Your task to perform on an android device: toggle pop-ups in chrome Image 0: 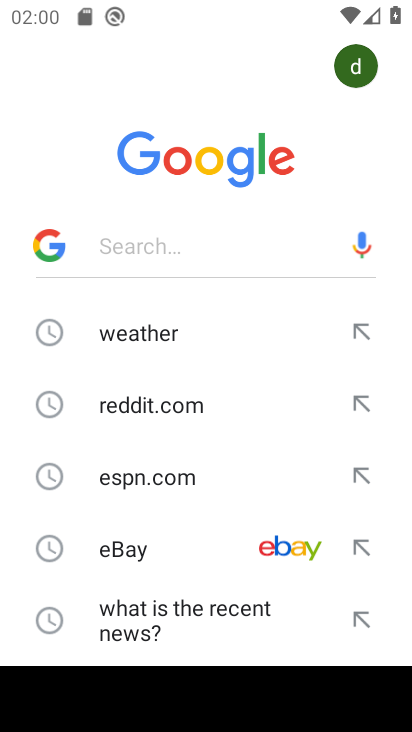
Step 0: press home button
Your task to perform on an android device: toggle pop-ups in chrome Image 1: 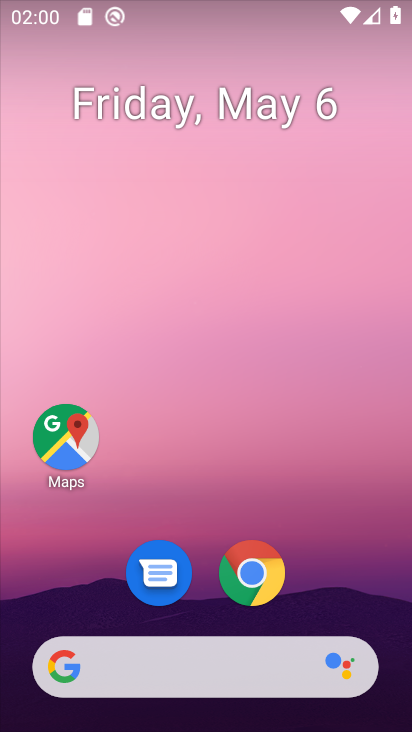
Step 1: drag from (305, 534) to (304, 239)
Your task to perform on an android device: toggle pop-ups in chrome Image 2: 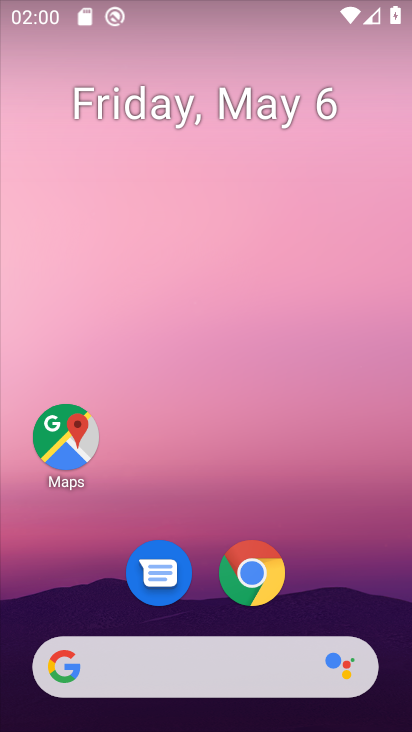
Step 2: drag from (322, 514) to (322, 272)
Your task to perform on an android device: toggle pop-ups in chrome Image 3: 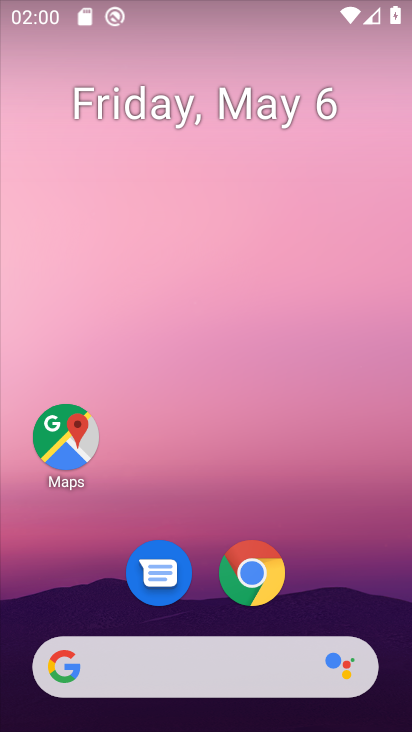
Step 3: drag from (290, 629) to (307, 248)
Your task to perform on an android device: toggle pop-ups in chrome Image 4: 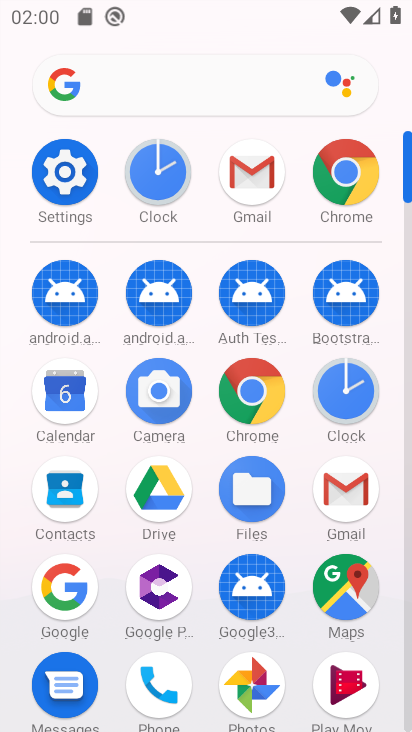
Step 4: click (255, 381)
Your task to perform on an android device: toggle pop-ups in chrome Image 5: 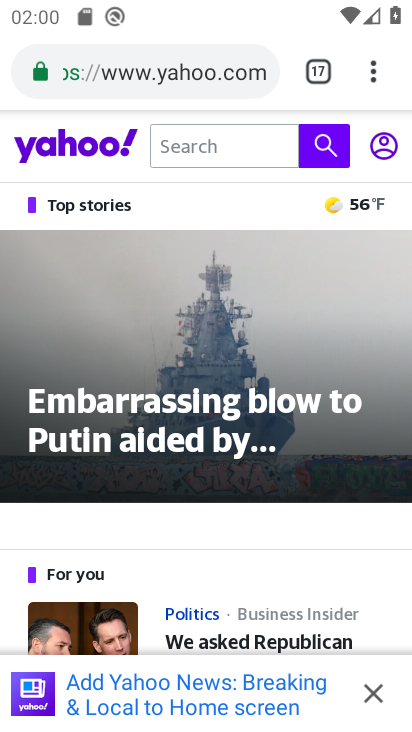
Step 5: click (356, 70)
Your task to perform on an android device: toggle pop-ups in chrome Image 6: 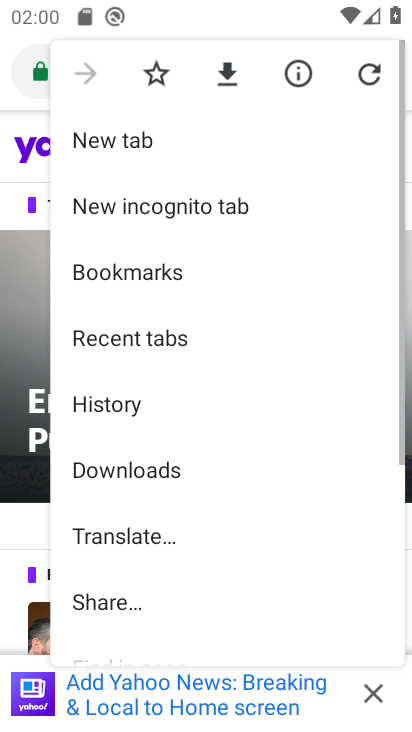
Step 6: drag from (141, 594) to (234, 180)
Your task to perform on an android device: toggle pop-ups in chrome Image 7: 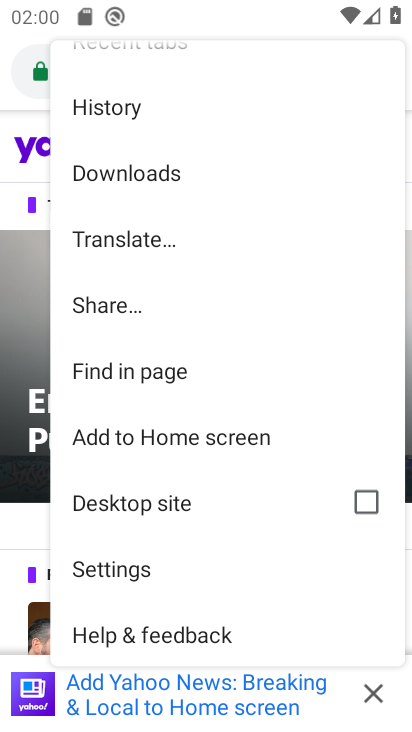
Step 7: click (151, 568)
Your task to perform on an android device: toggle pop-ups in chrome Image 8: 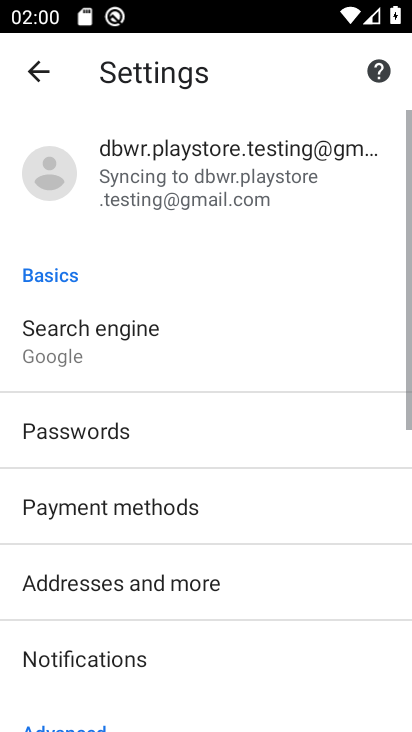
Step 8: drag from (191, 626) to (281, 209)
Your task to perform on an android device: toggle pop-ups in chrome Image 9: 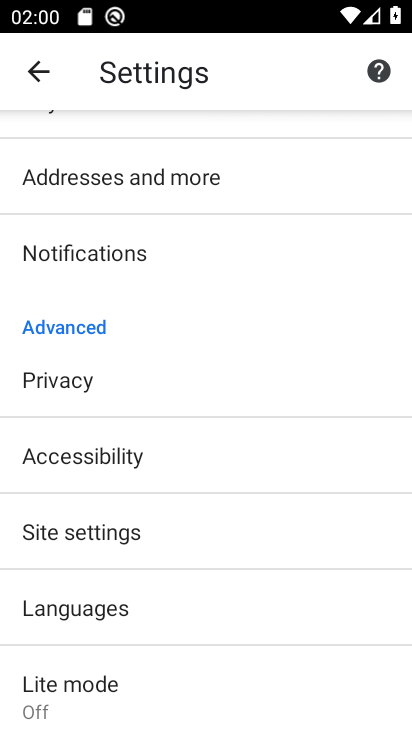
Step 9: click (84, 533)
Your task to perform on an android device: toggle pop-ups in chrome Image 10: 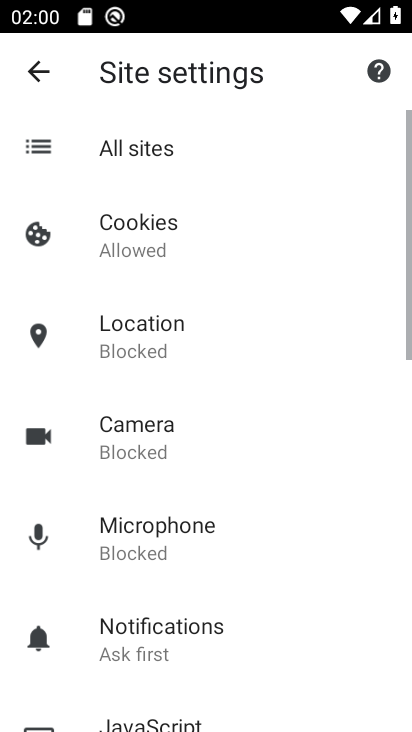
Step 10: drag from (221, 653) to (271, 296)
Your task to perform on an android device: toggle pop-ups in chrome Image 11: 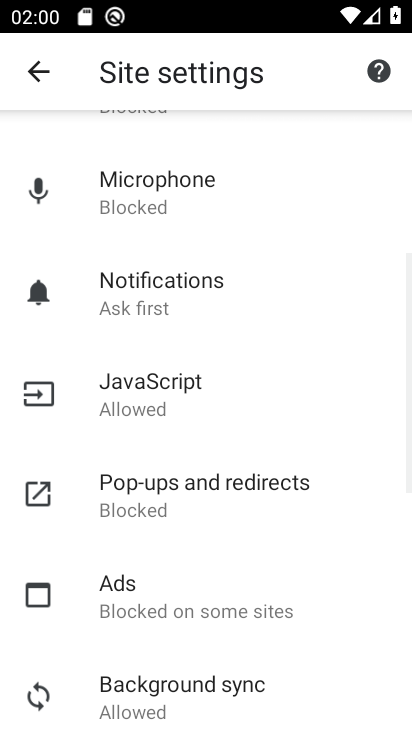
Step 11: click (172, 502)
Your task to perform on an android device: toggle pop-ups in chrome Image 12: 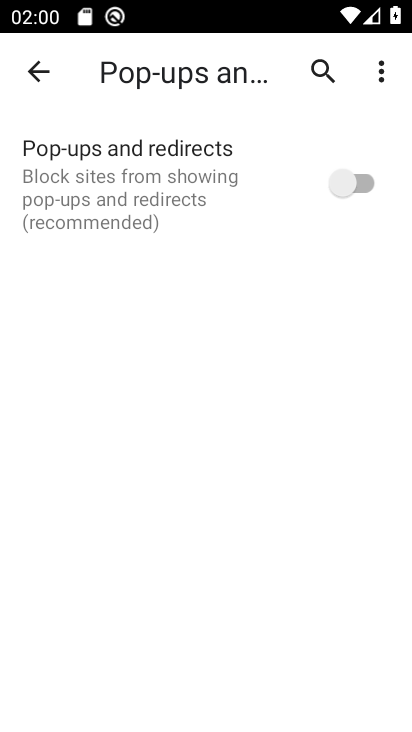
Step 12: click (351, 178)
Your task to perform on an android device: toggle pop-ups in chrome Image 13: 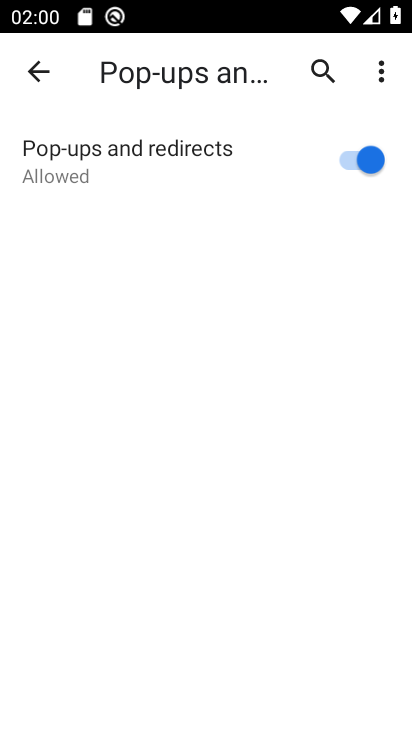
Step 13: task complete